Your task to perform on an android device: Open maps Image 0: 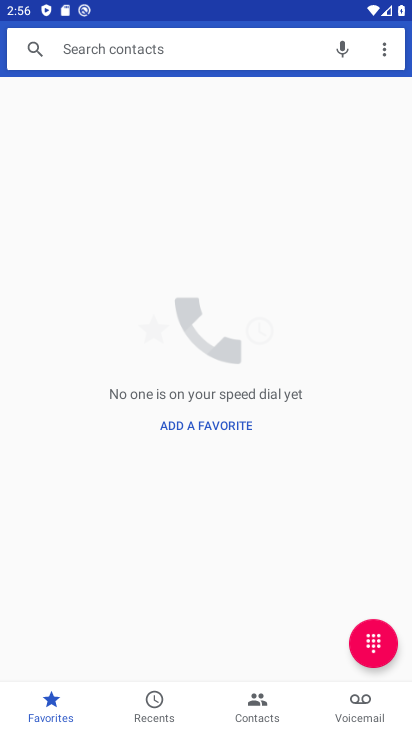
Step 0: press home button
Your task to perform on an android device: Open maps Image 1: 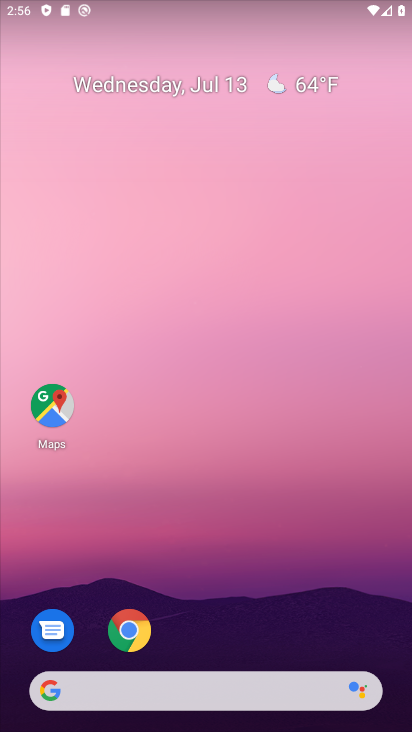
Step 1: click (43, 421)
Your task to perform on an android device: Open maps Image 2: 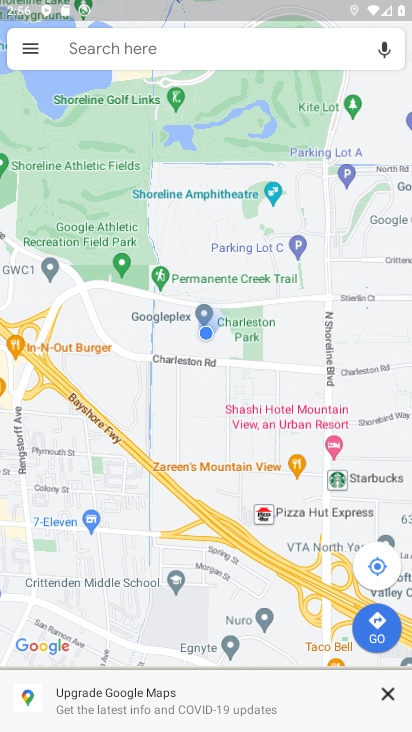
Step 2: task complete